Your task to perform on an android device: toggle translation in the chrome app Image 0: 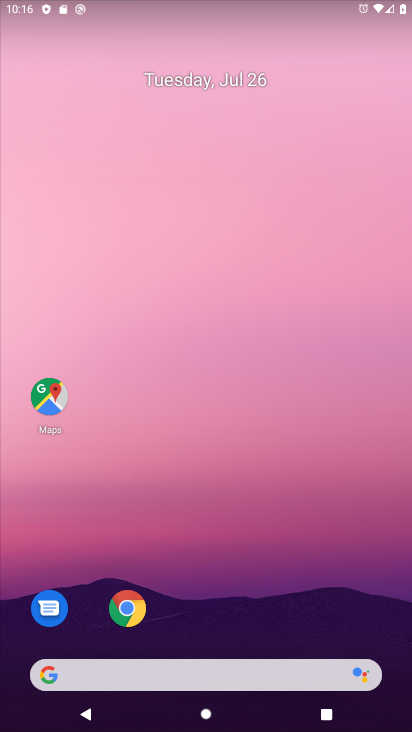
Step 0: click (126, 614)
Your task to perform on an android device: toggle translation in the chrome app Image 1: 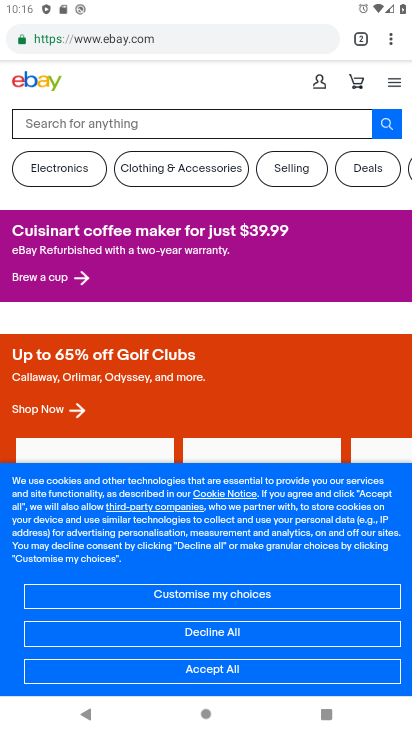
Step 1: click (392, 40)
Your task to perform on an android device: toggle translation in the chrome app Image 2: 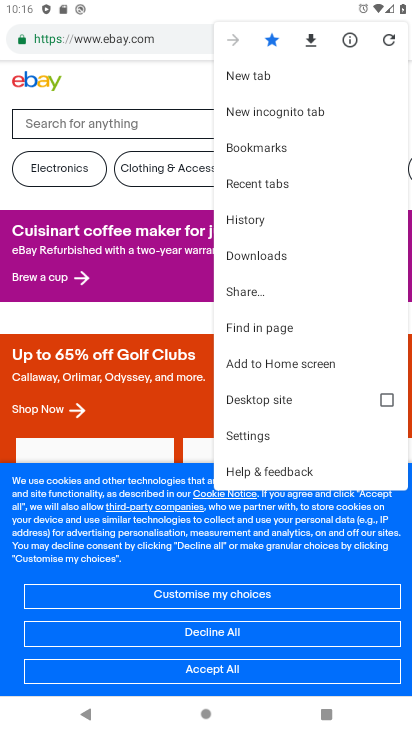
Step 2: click (247, 437)
Your task to perform on an android device: toggle translation in the chrome app Image 3: 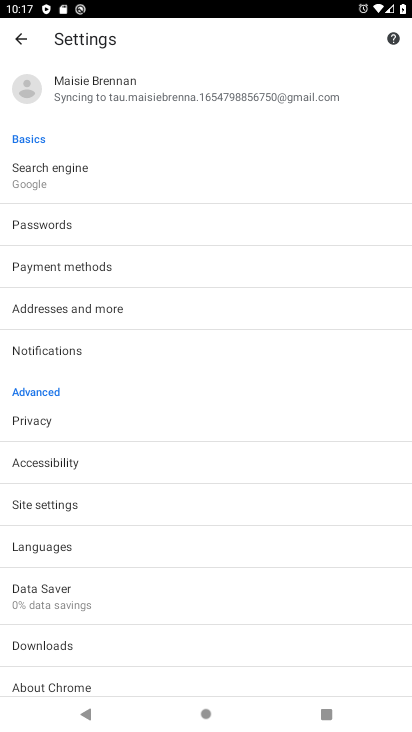
Step 3: click (33, 544)
Your task to perform on an android device: toggle translation in the chrome app Image 4: 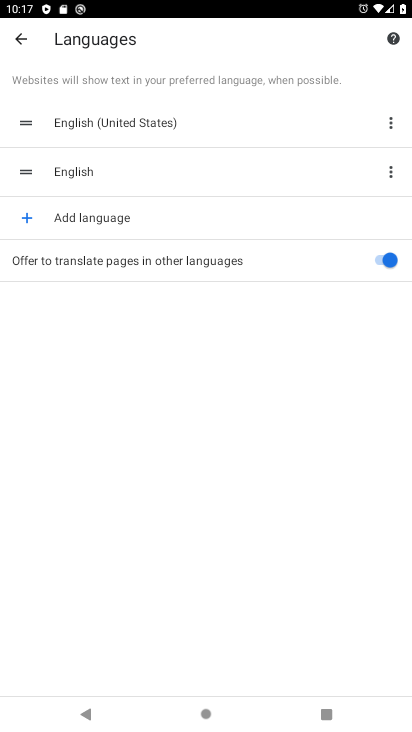
Step 4: click (391, 264)
Your task to perform on an android device: toggle translation in the chrome app Image 5: 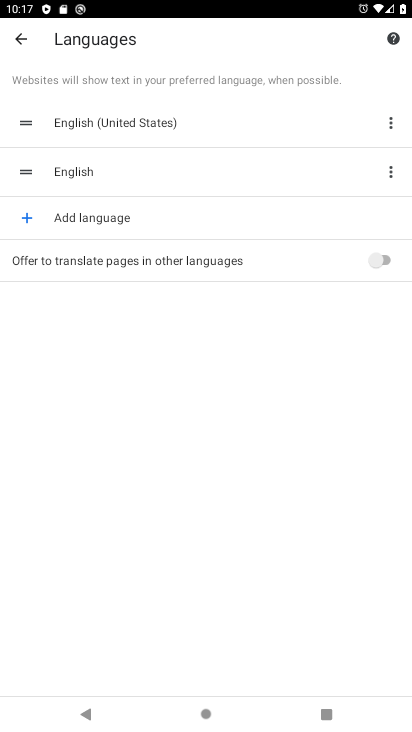
Step 5: task complete